Your task to perform on an android device: turn on the 12-hour format for clock Image 0: 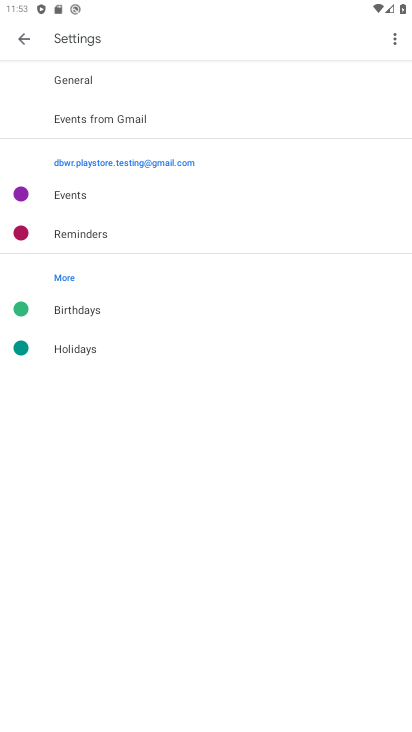
Step 0: press home button
Your task to perform on an android device: turn on the 12-hour format for clock Image 1: 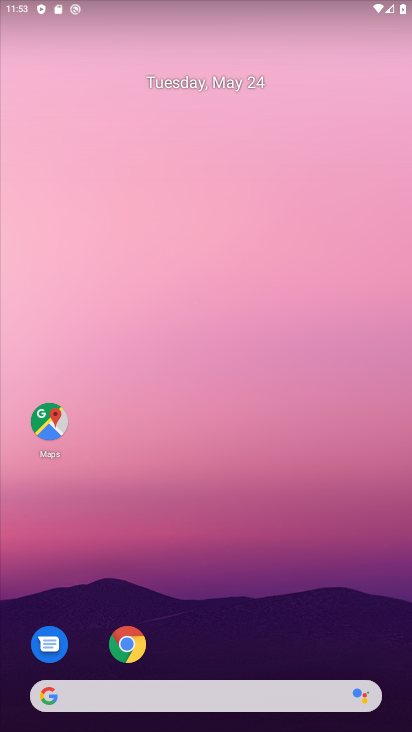
Step 1: drag from (193, 694) to (264, 229)
Your task to perform on an android device: turn on the 12-hour format for clock Image 2: 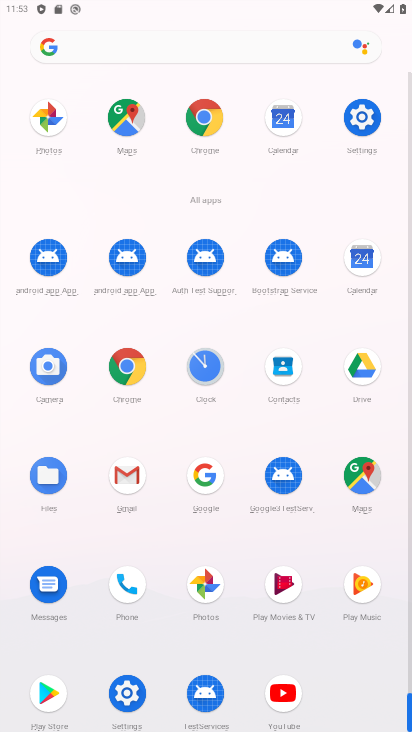
Step 2: click (208, 362)
Your task to perform on an android device: turn on the 12-hour format for clock Image 3: 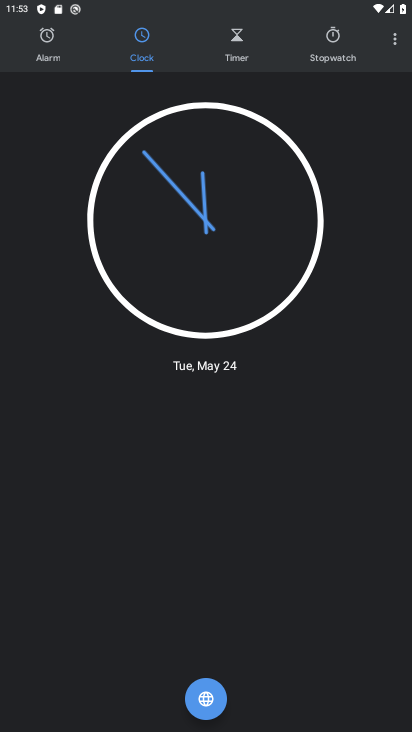
Step 3: click (386, 45)
Your task to perform on an android device: turn on the 12-hour format for clock Image 4: 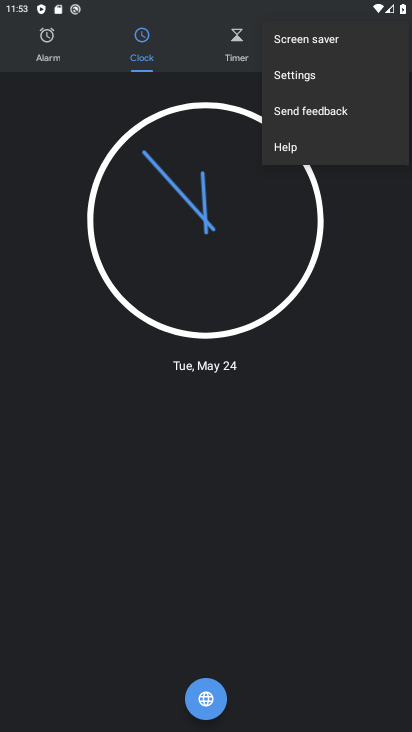
Step 4: click (354, 79)
Your task to perform on an android device: turn on the 12-hour format for clock Image 5: 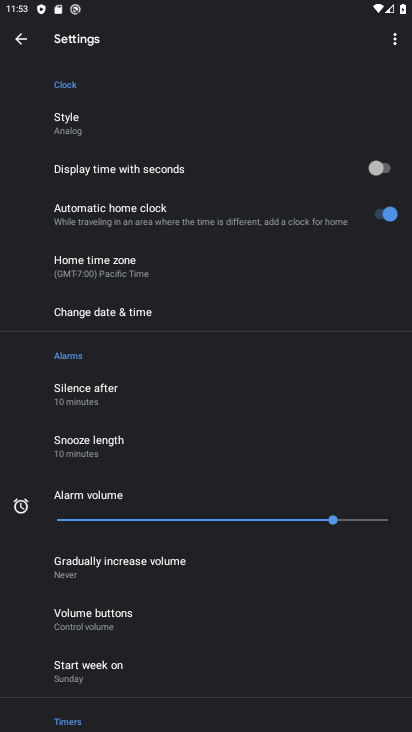
Step 5: drag from (159, 619) to (205, 679)
Your task to perform on an android device: turn on the 12-hour format for clock Image 6: 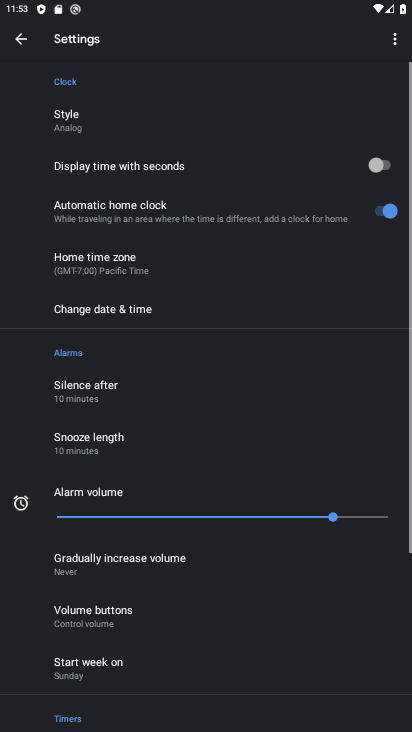
Step 6: click (159, 305)
Your task to perform on an android device: turn on the 12-hour format for clock Image 7: 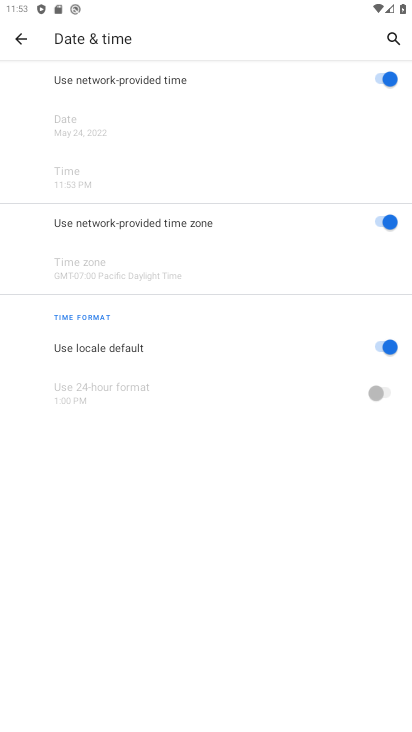
Step 7: task complete